Your task to perform on an android device: What is the capital of China? Image 0: 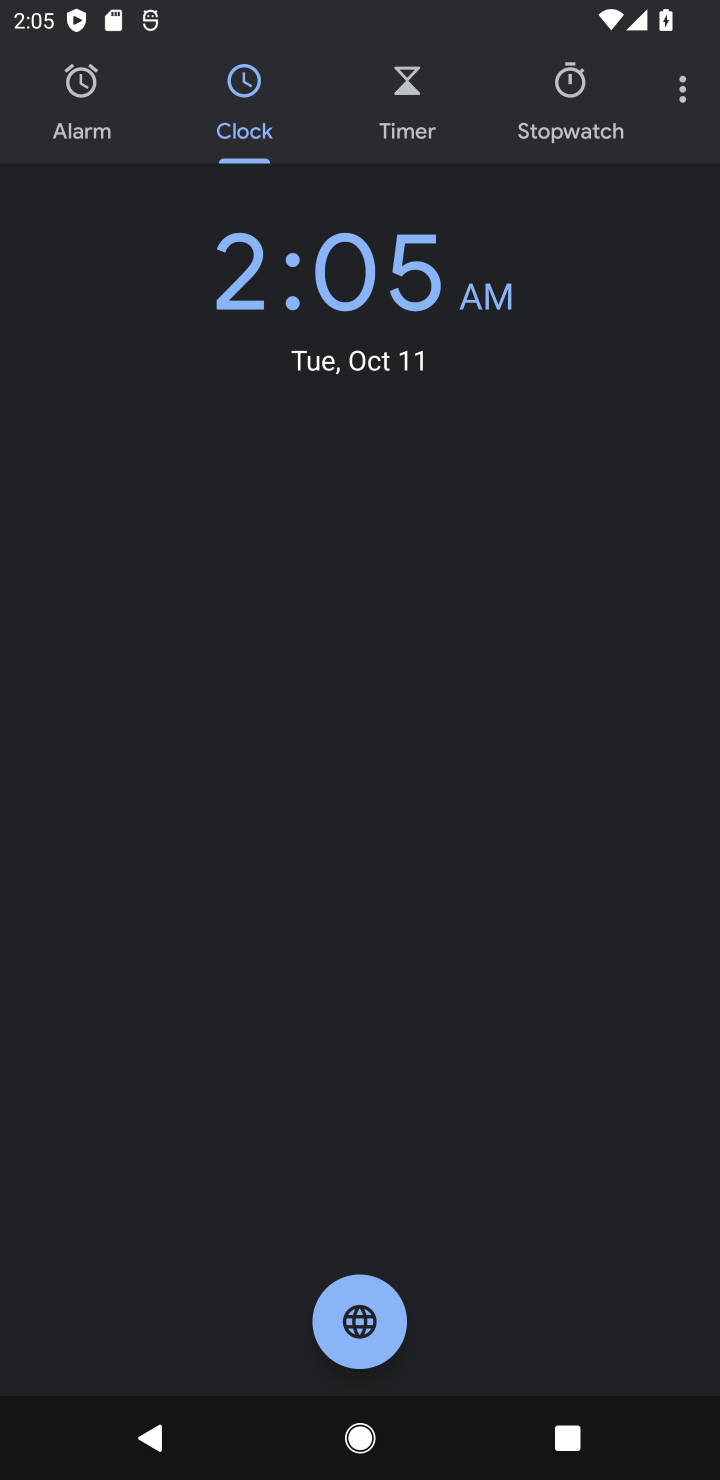
Step 0: press home button
Your task to perform on an android device: What is the capital of China? Image 1: 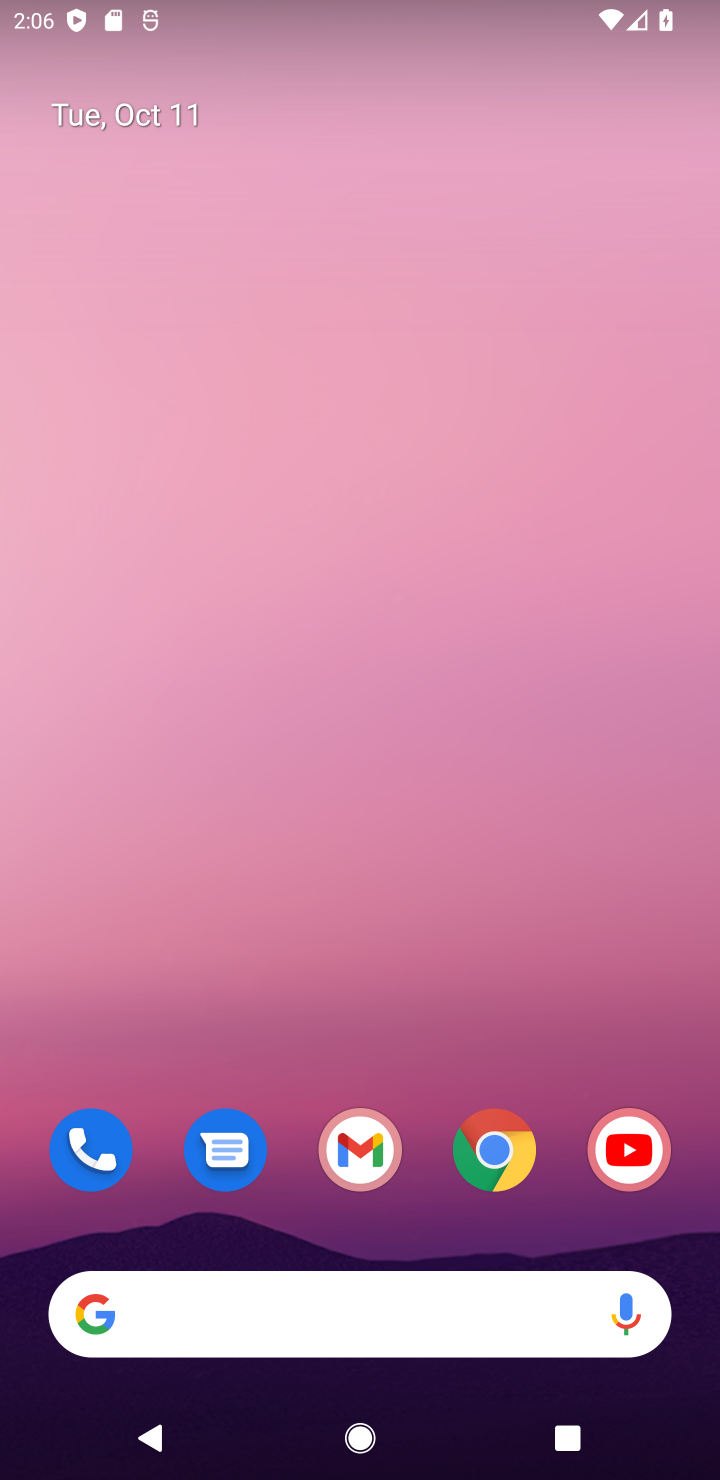
Step 1: drag from (364, 937) to (455, 214)
Your task to perform on an android device: What is the capital of China? Image 2: 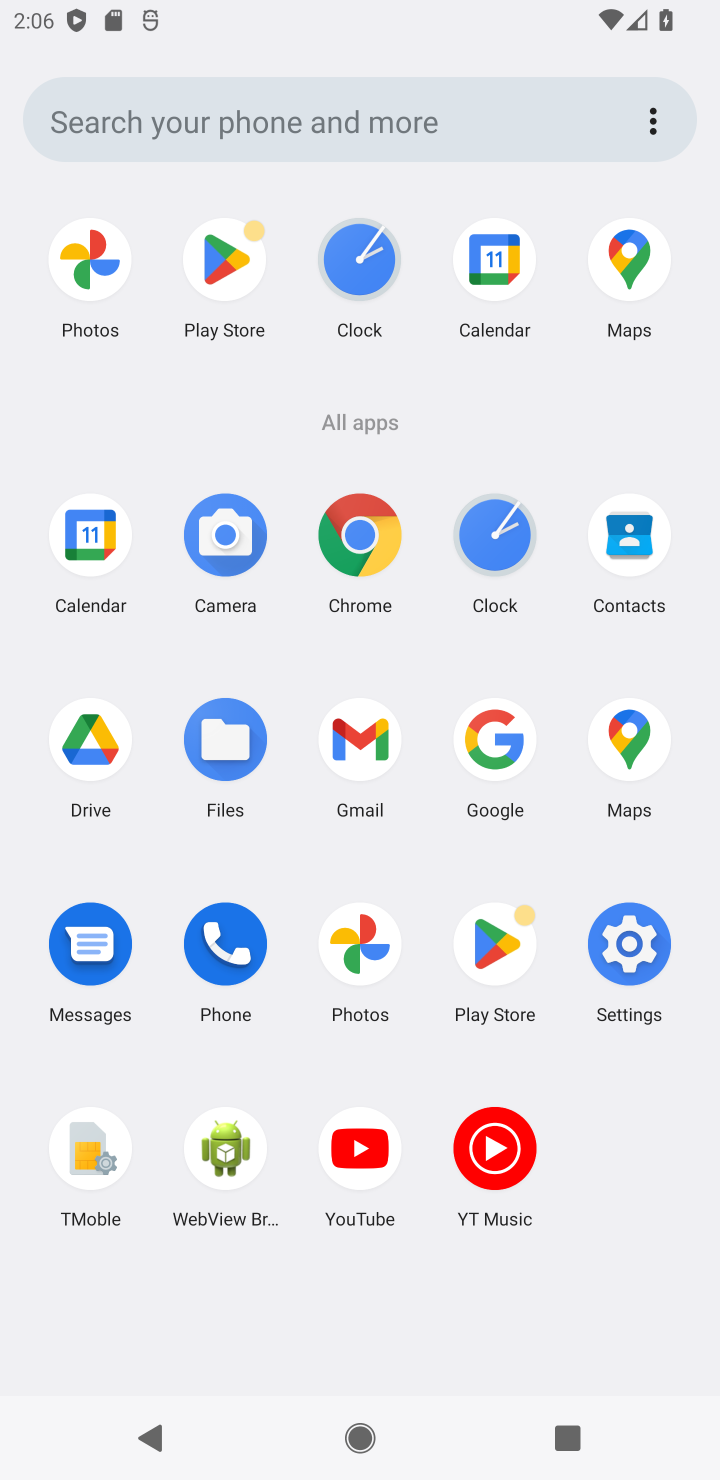
Step 2: click (504, 738)
Your task to perform on an android device: What is the capital of China? Image 3: 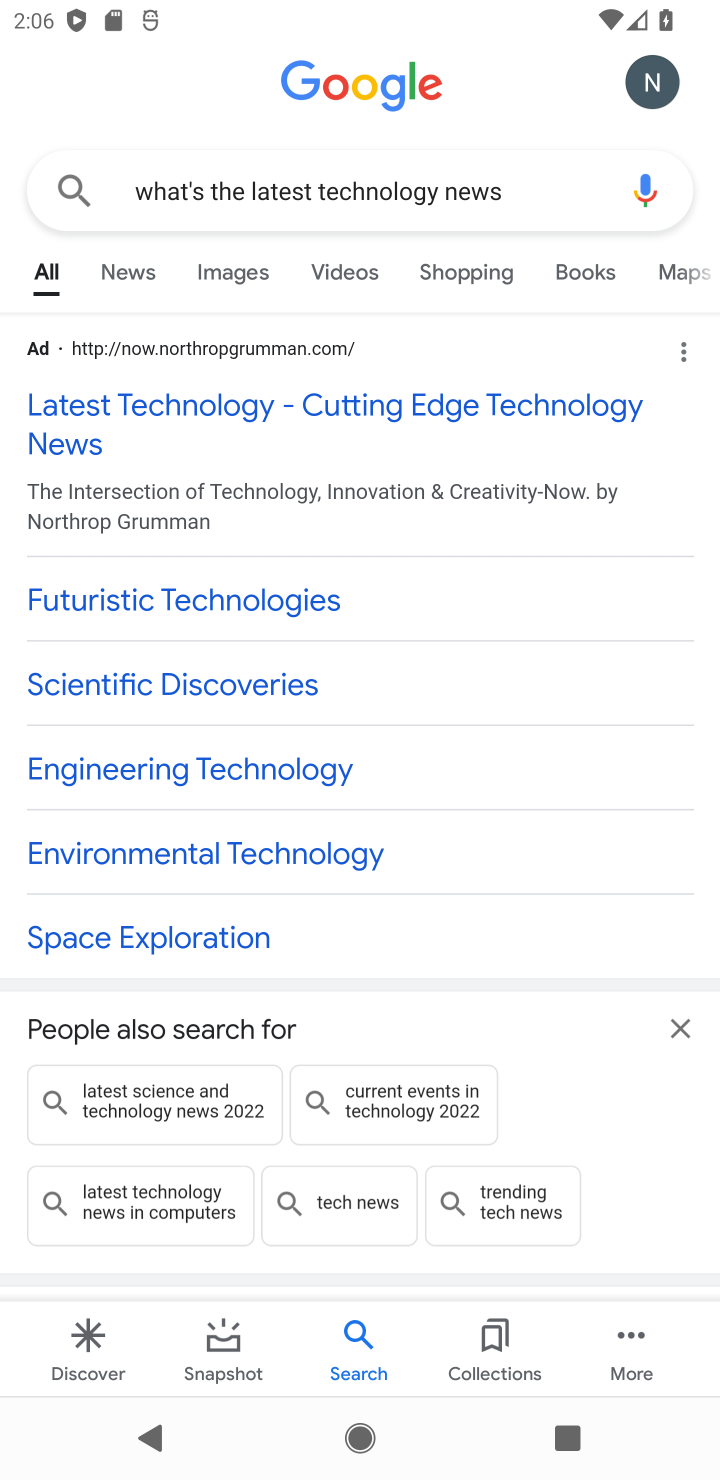
Step 3: click (470, 198)
Your task to perform on an android device: What is the capital of China? Image 4: 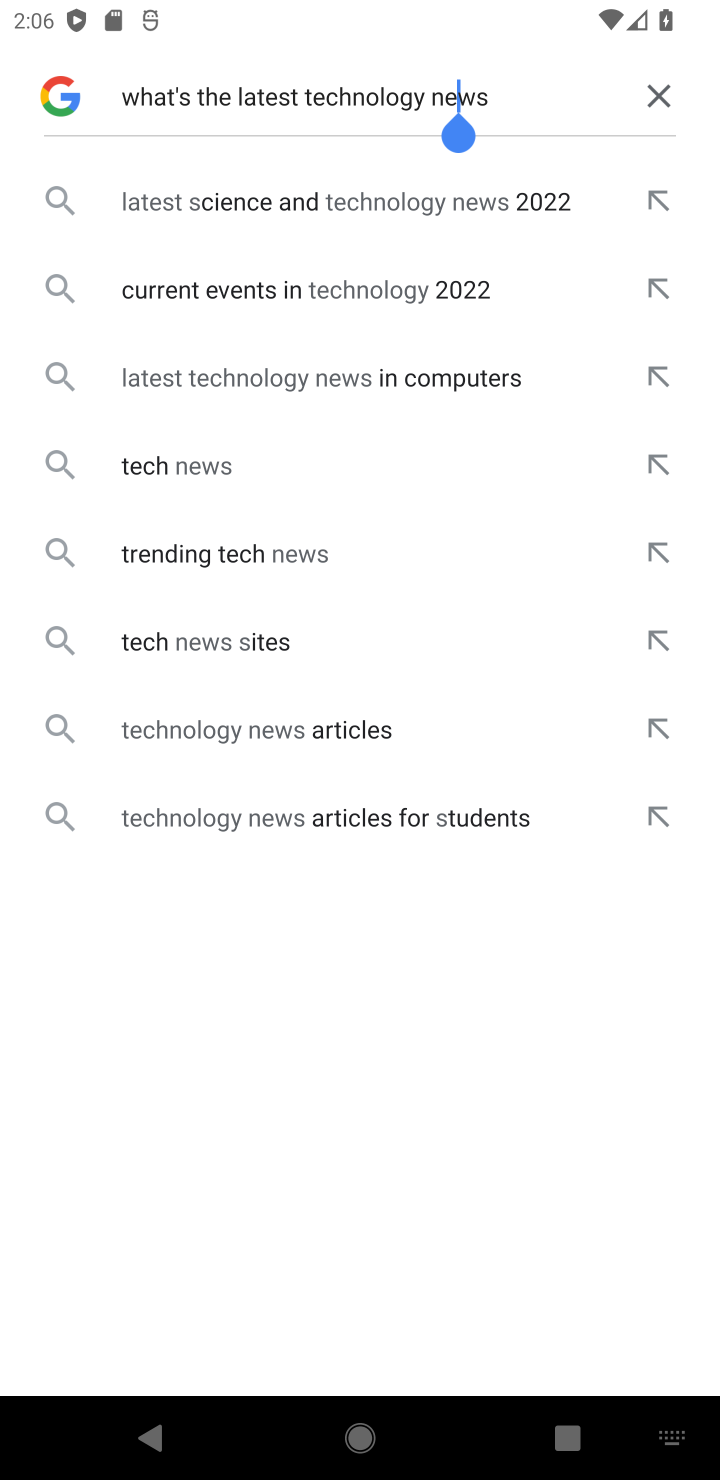
Step 4: click (656, 101)
Your task to perform on an android device: What is the capital of China? Image 5: 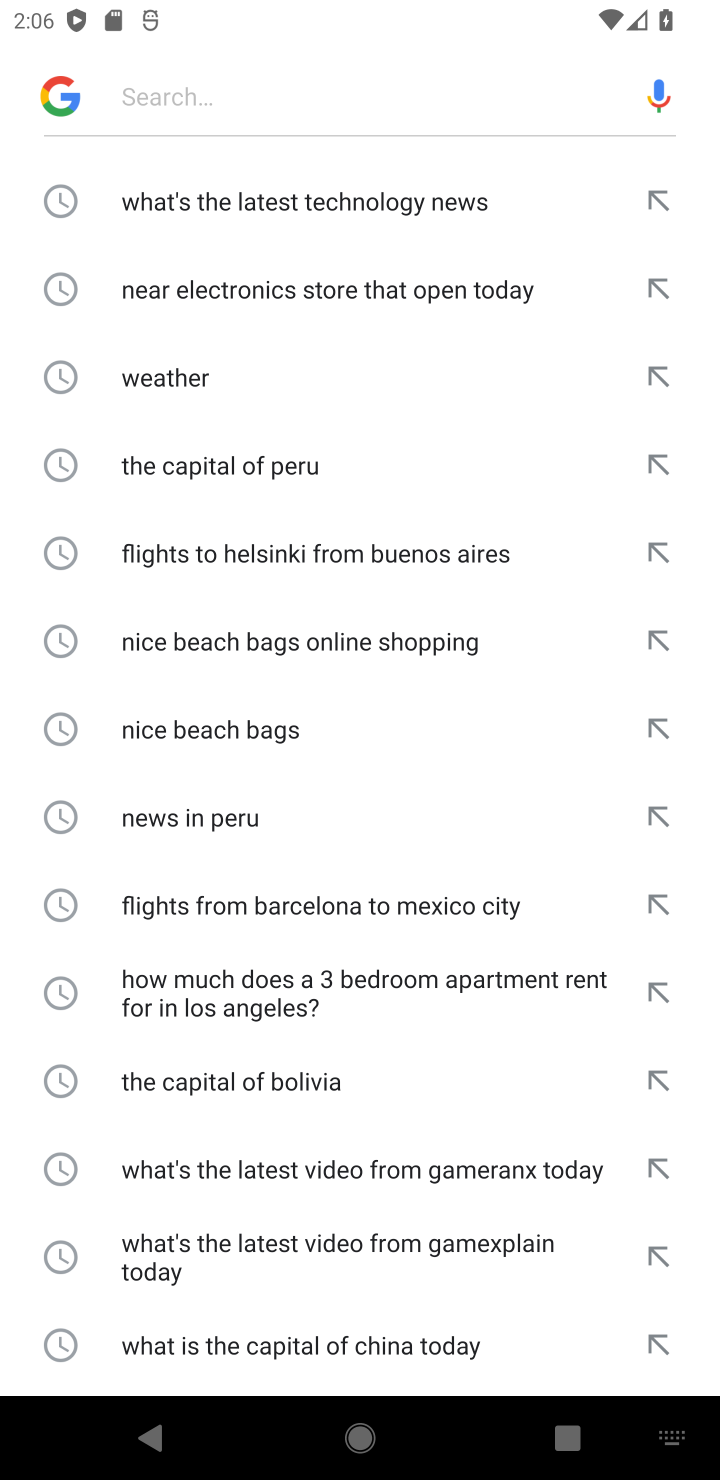
Step 5: type "What is the capital of China?"
Your task to perform on an android device: What is the capital of China? Image 6: 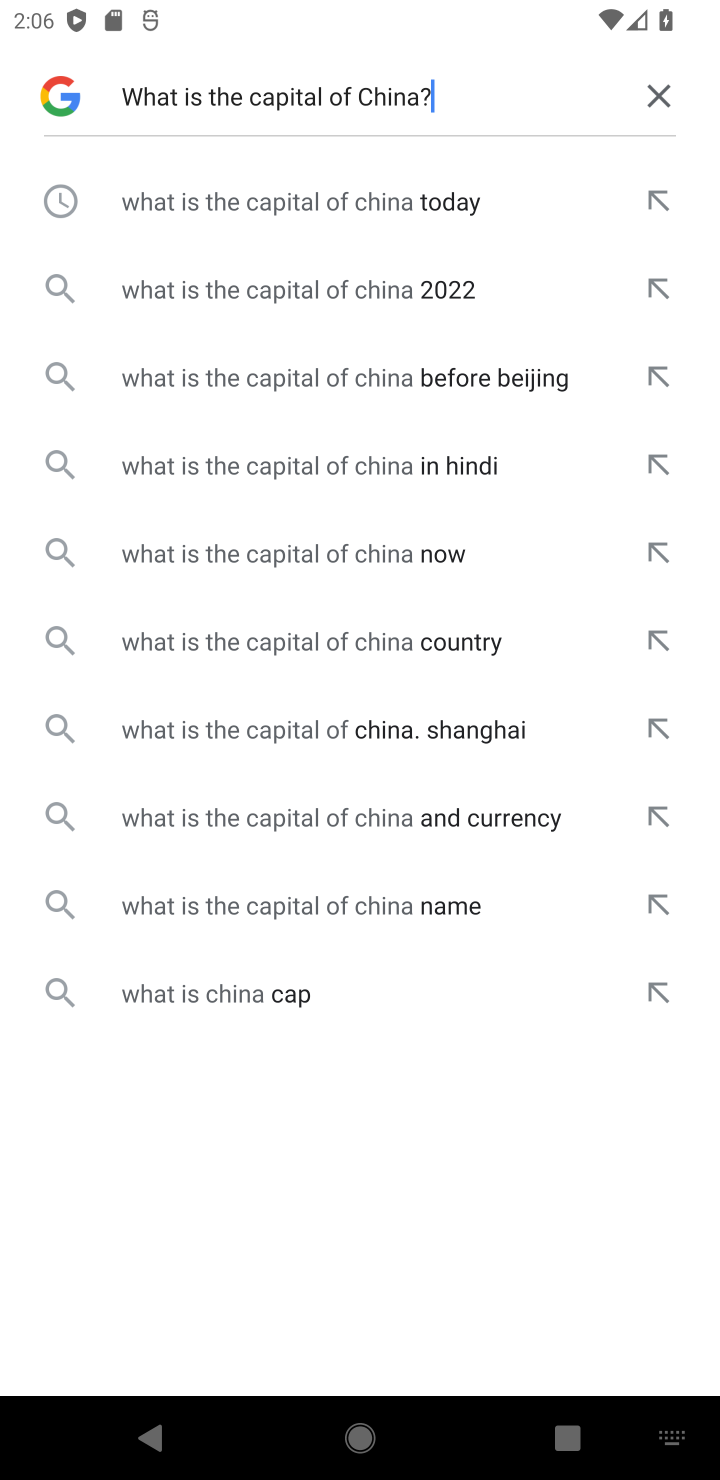
Step 6: click (232, 214)
Your task to perform on an android device: What is the capital of China? Image 7: 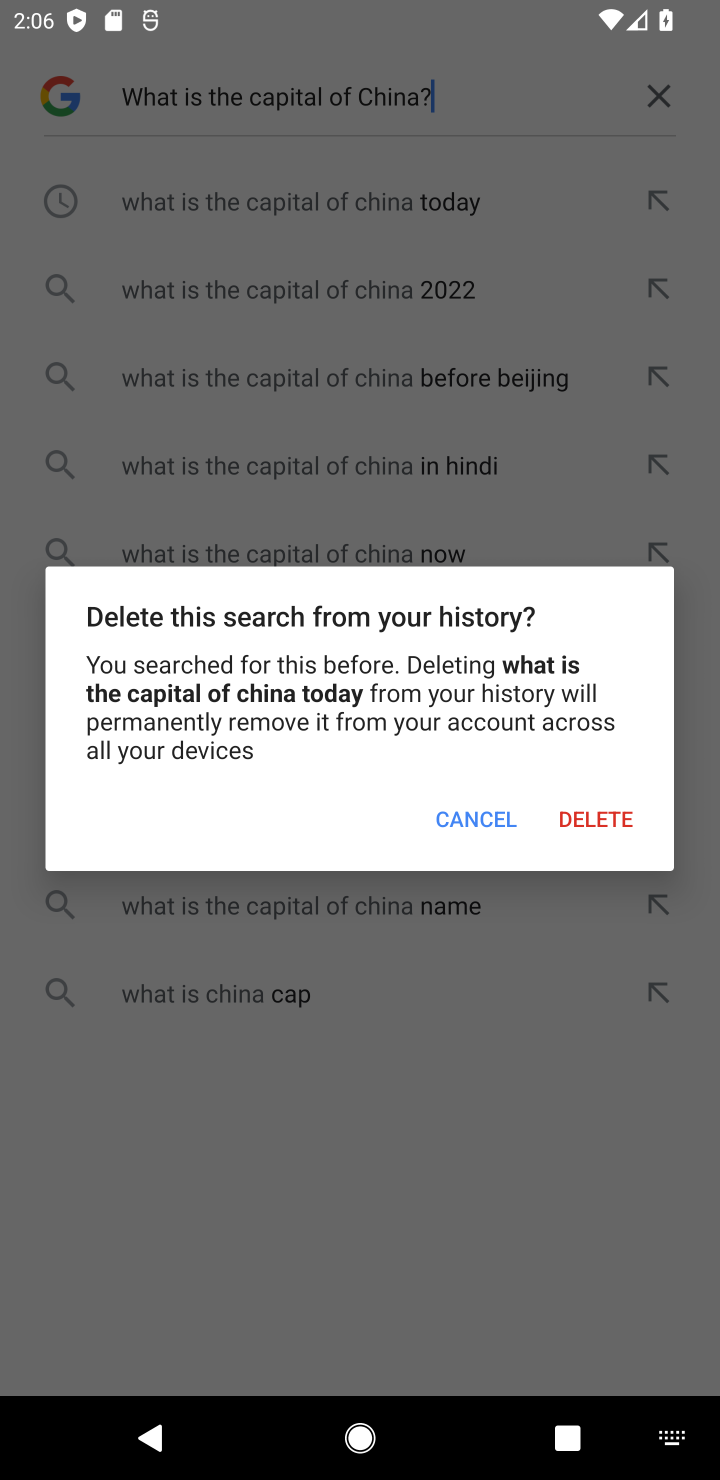
Step 7: click (468, 828)
Your task to perform on an android device: What is the capital of China? Image 8: 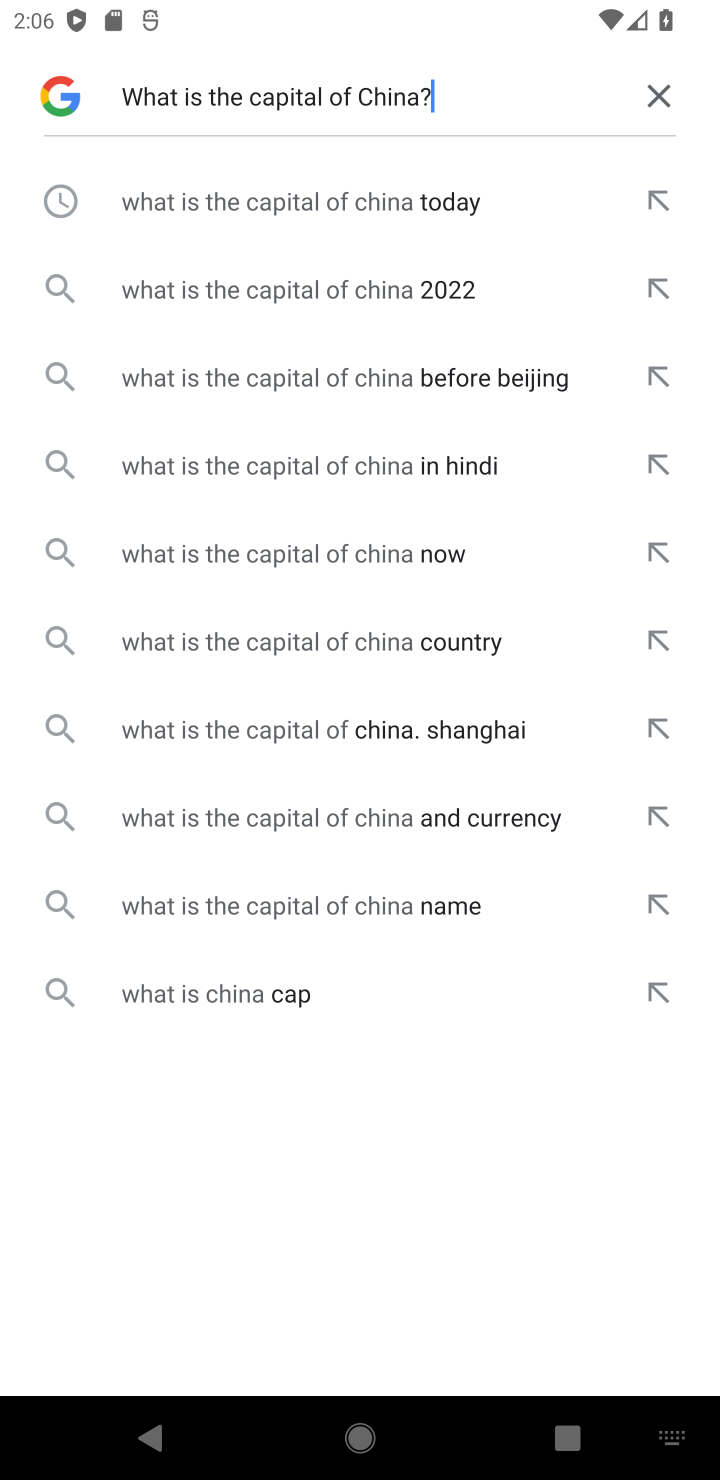
Step 8: click (359, 207)
Your task to perform on an android device: What is the capital of China? Image 9: 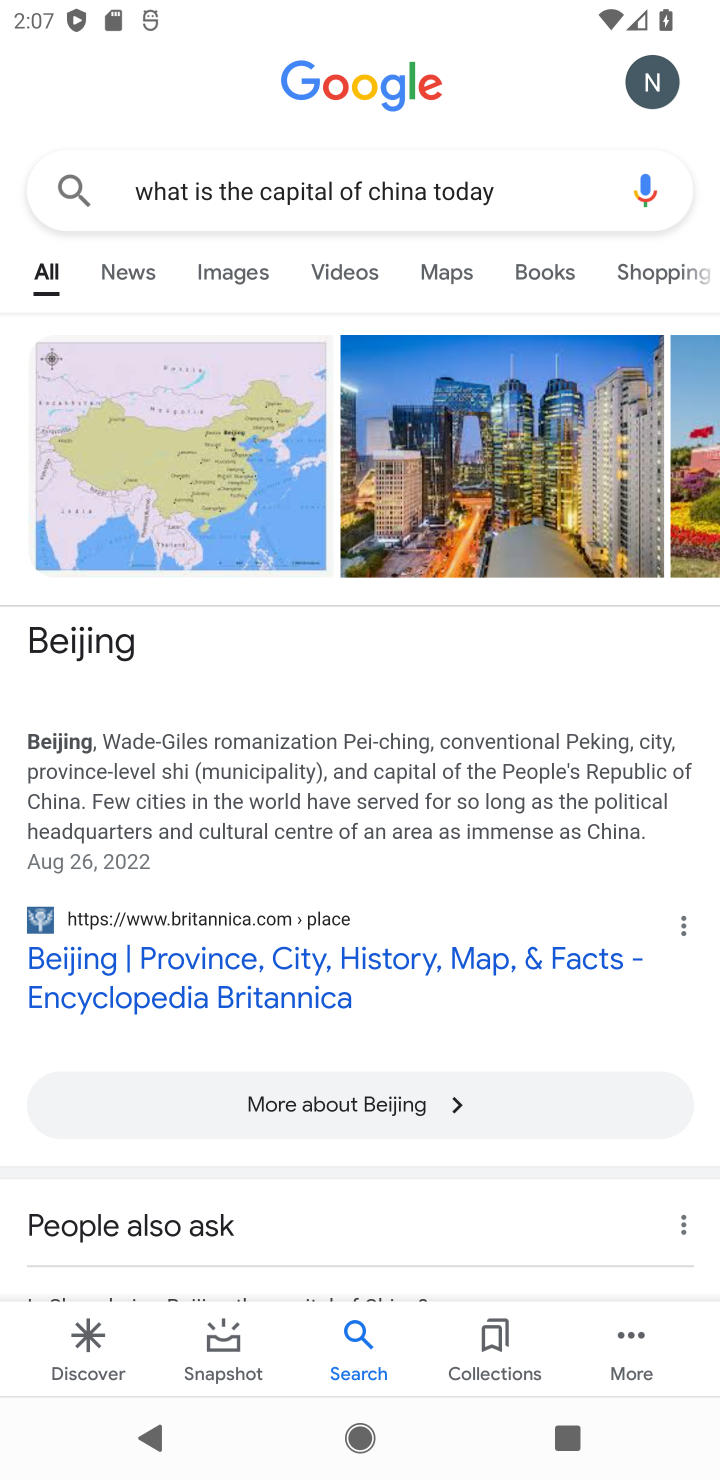
Step 9: task complete